Your task to perform on an android device: Open Google Maps and go to "Timeline" Image 0: 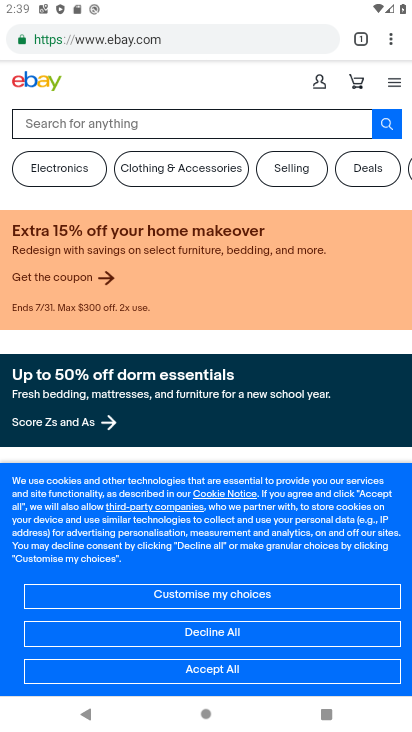
Step 0: press home button
Your task to perform on an android device: Open Google Maps and go to "Timeline" Image 1: 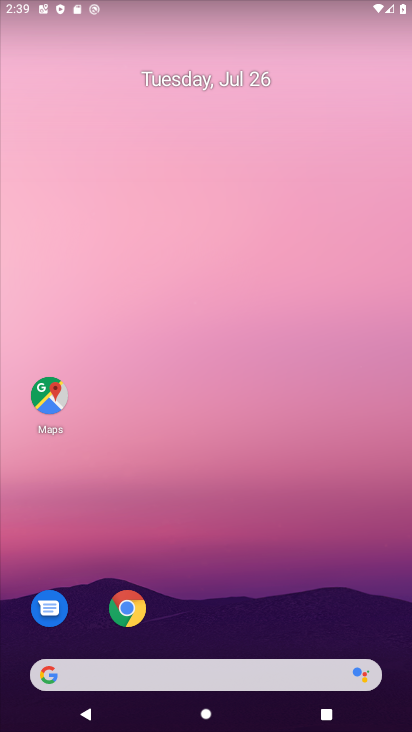
Step 1: click (59, 416)
Your task to perform on an android device: Open Google Maps and go to "Timeline" Image 2: 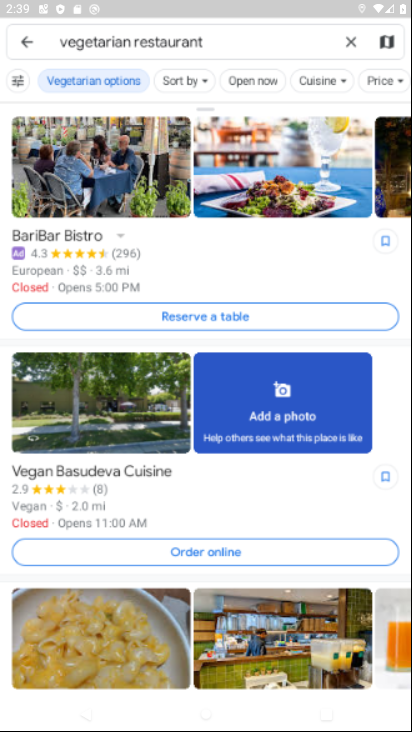
Step 2: click (27, 49)
Your task to perform on an android device: Open Google Maps and go to "Timeline" Image 3: 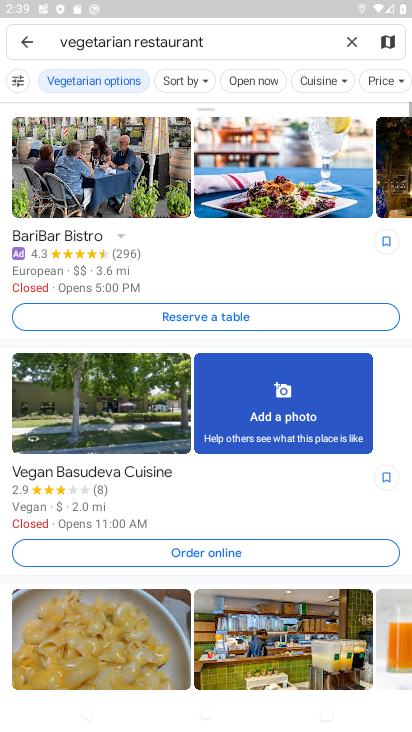
Step 3: click (27, 49)
Your task to perform on an android device: Open Google Maps and go to "Timeline" Image 4: 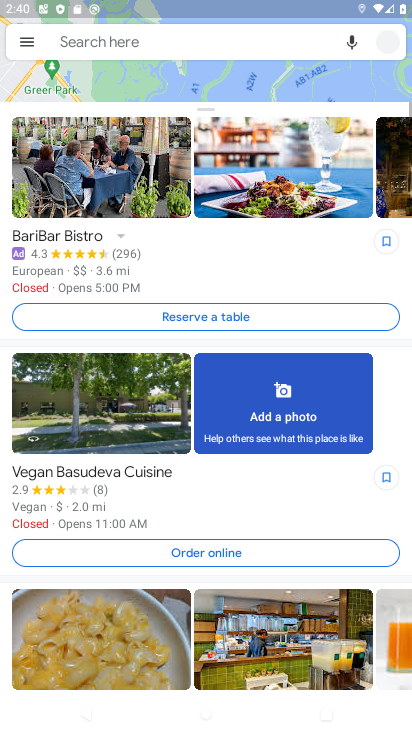
Step 4: task complete